Your task to perform on an android device: Turn on the flashlight Image 0: 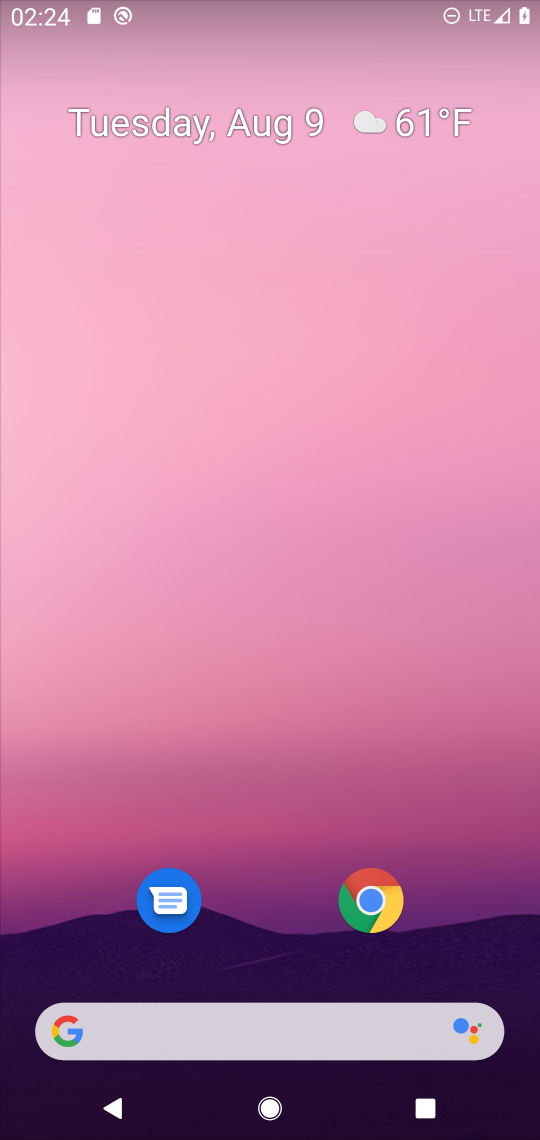
Step 0: press home button
Your task to perform on an android device: Turn on the flashlight Image 1: 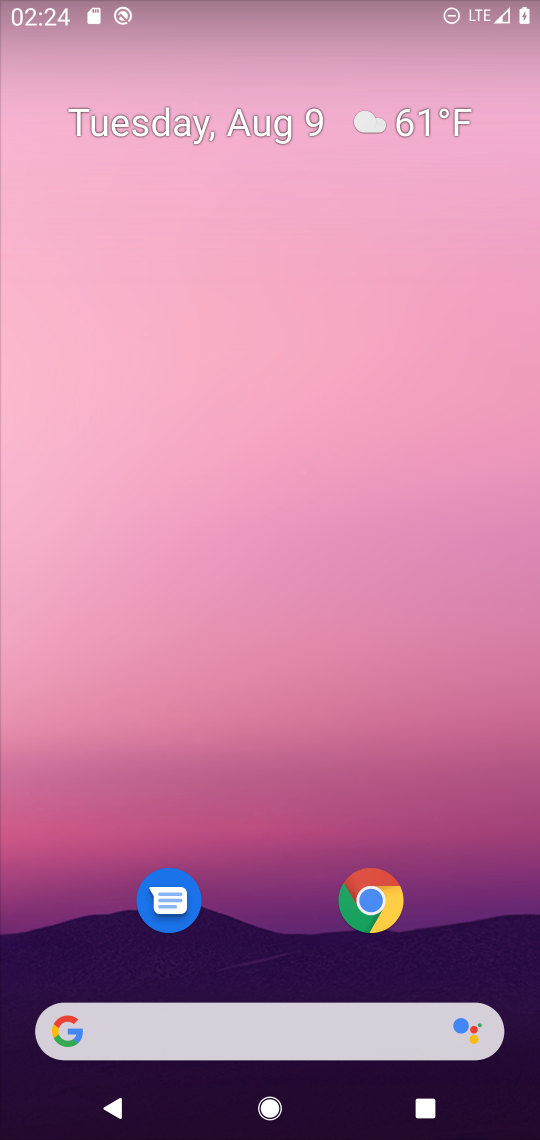
Step 1: drag from (272, 34) to (279, 541)
Your task to perform on an android device: Turn on the flashlight Image 2: 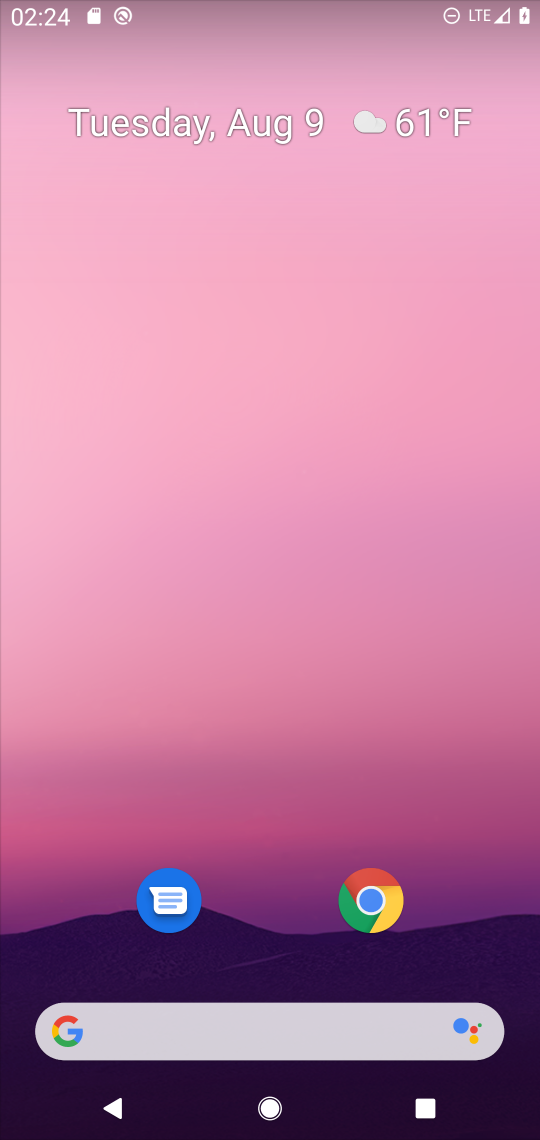
Step 2: drag from (283, 2) to (324, 713)
Your task to perform on an android device: Turn on the flashlight Image 3: 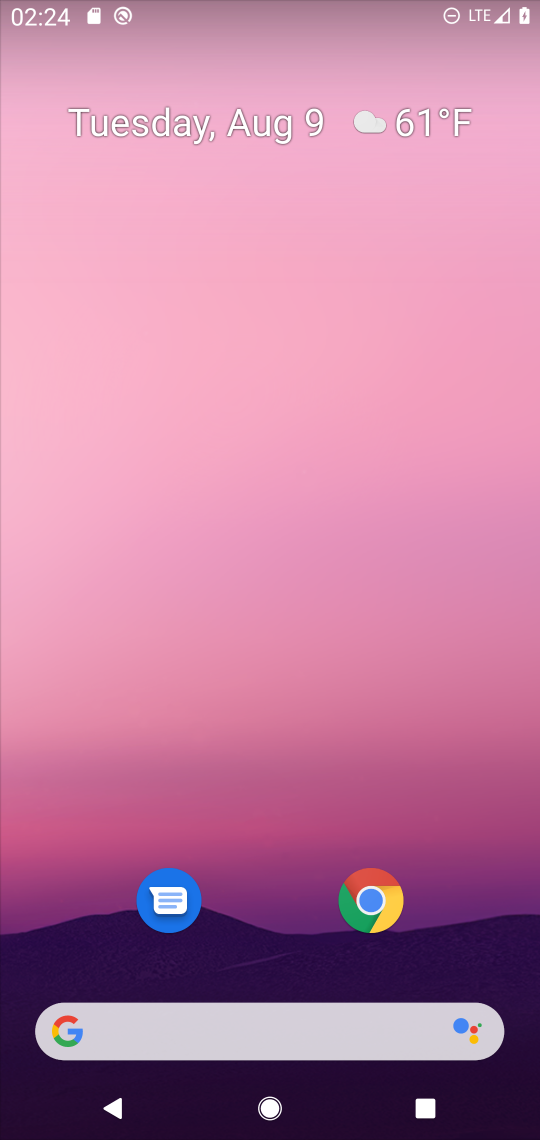
Step 3: drag from (288, 10) to (365, 756)
Your task to perform on an android device: Turn on the flashlight Image 4: 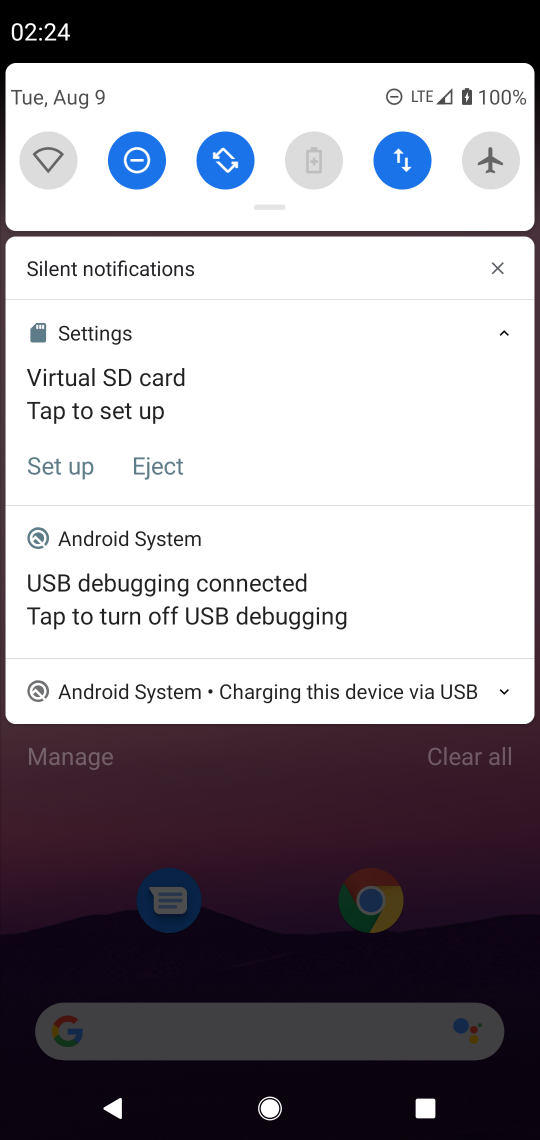
Step 4: drag from (261, 65) to (337, 686)
Your task to perform on an android device: Turn on the flashlight Image 5: 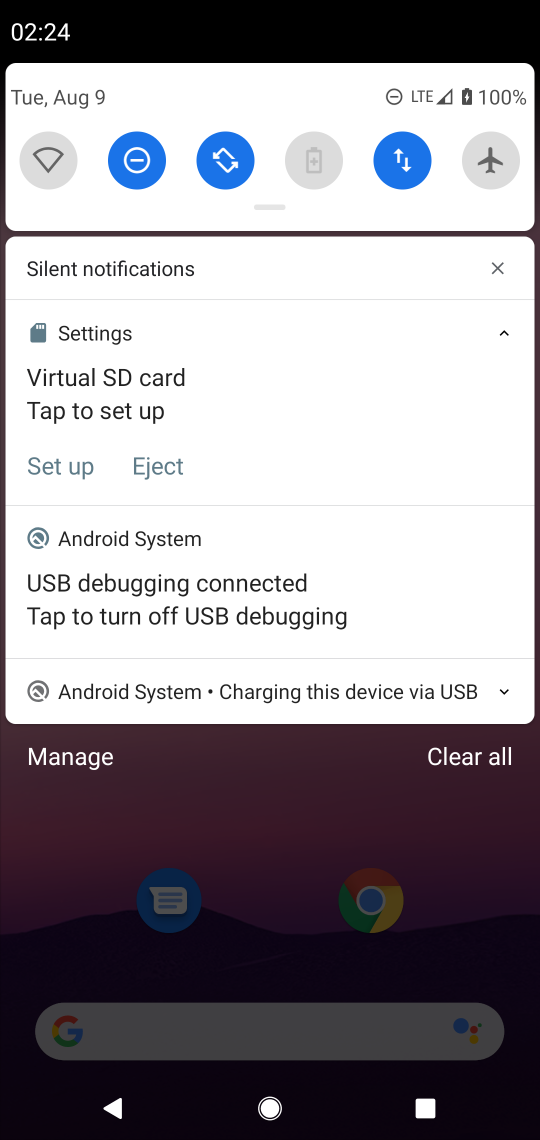
Step 5: drag from (267, 100) to (287, 642)
Your task to perform on an android device: Turn on the flashlight Image 6: 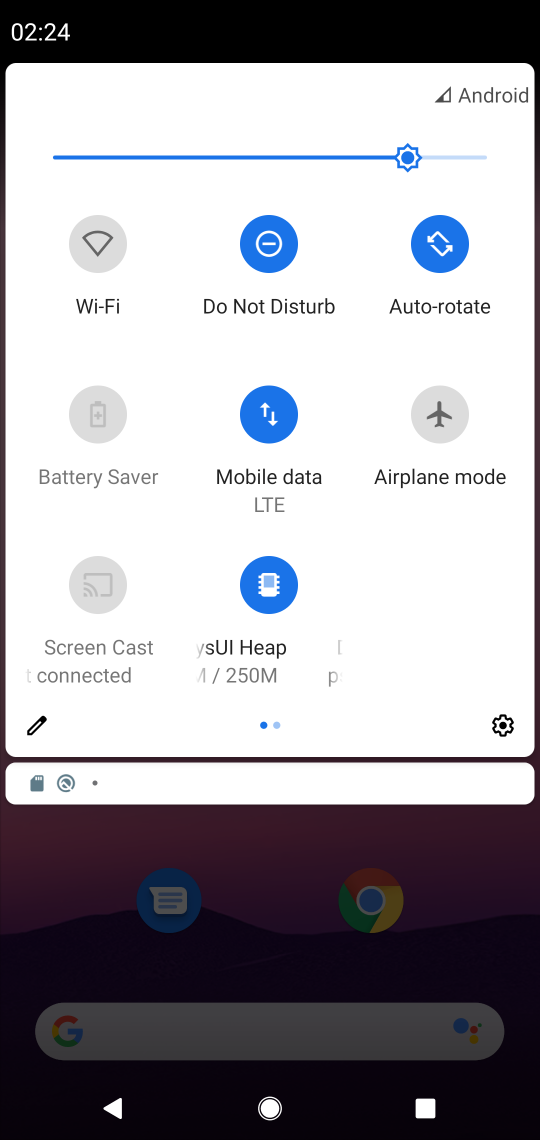
Step 6: click (35, 731)
Your task to perform on an android device: Turn on the flashlight Image 7: 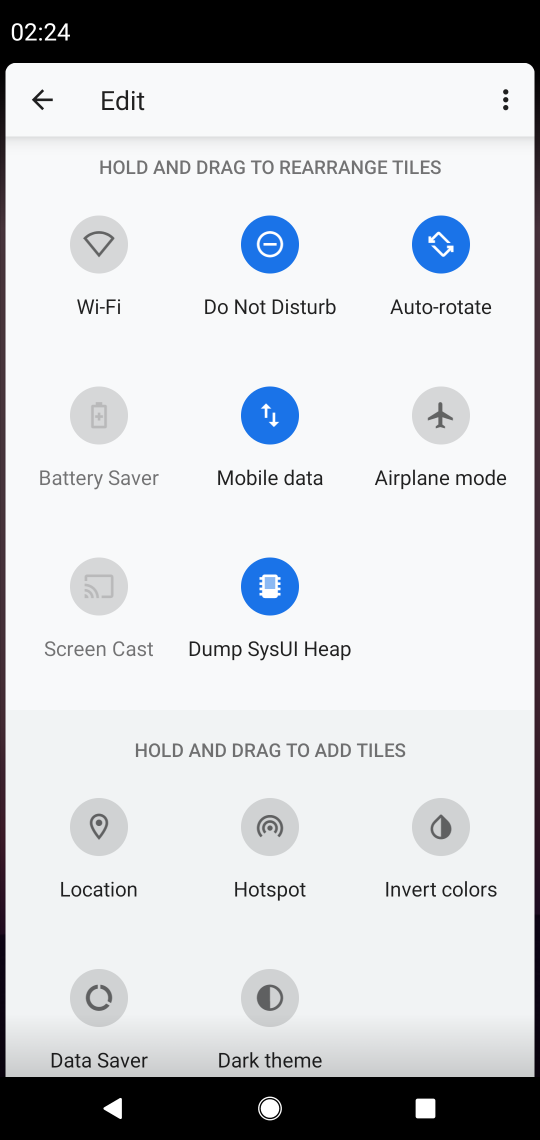
Step 7: task complete